Your task to perform on an android device: When is my next appointment? Image 0: 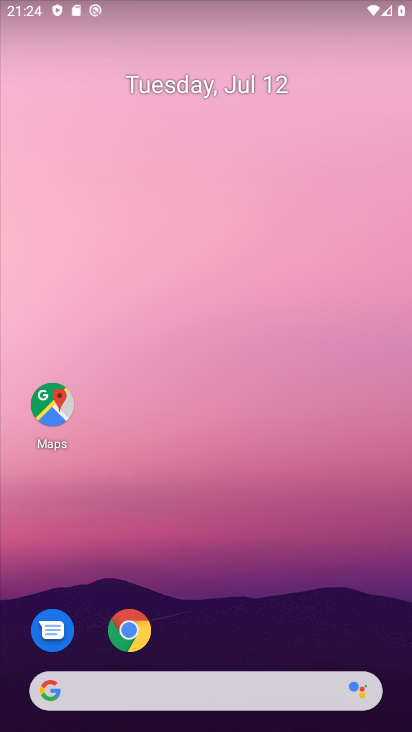
Step 0: click (266, 63)
Your task to perform on an android device: When is my next appointment? Image 1: 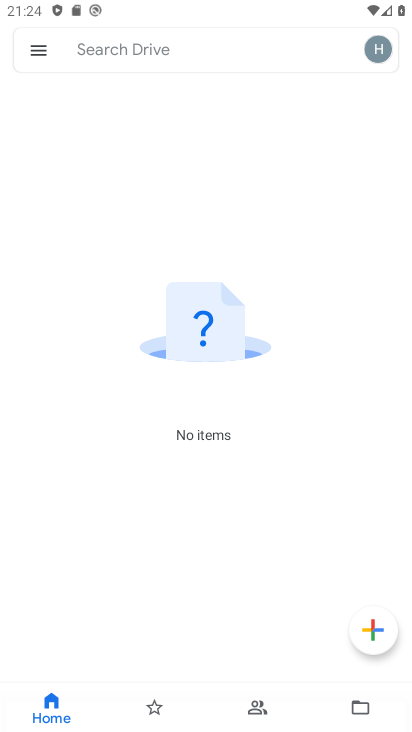
Step 1: press back button
Your task to perform on an android device: When is my next appointment? Image 2: 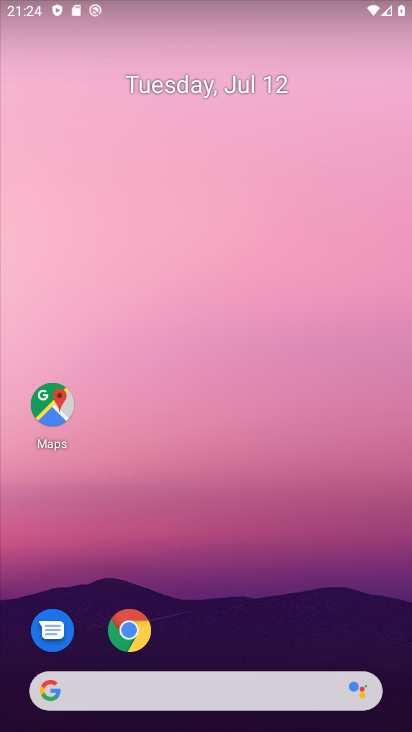
Step 2: drag from (198, 662) to (286, 84)
Your task to perform on an android device: When is my next appointment? Image 3: 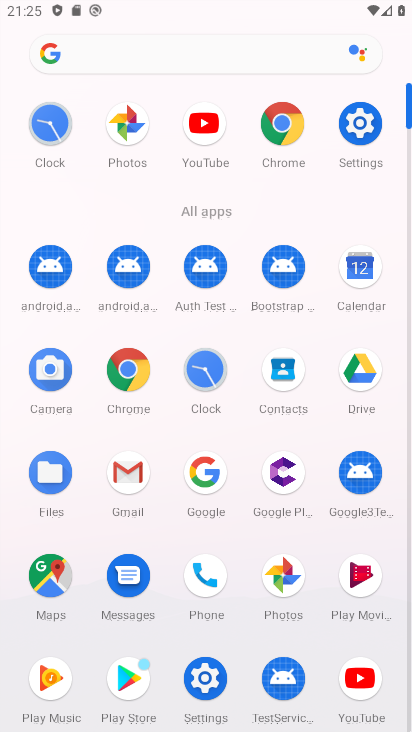
Step 3: click (360, 268)
Your task to perform on an android device: When is my next appointment? Image 4: 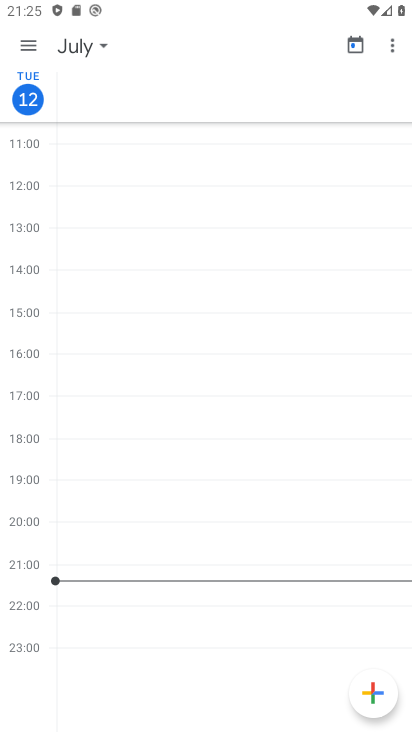
Step 4: drag from (176, 629) to (295, 114)
Your task to perform on an android device: When is my next appointment? Image 5: 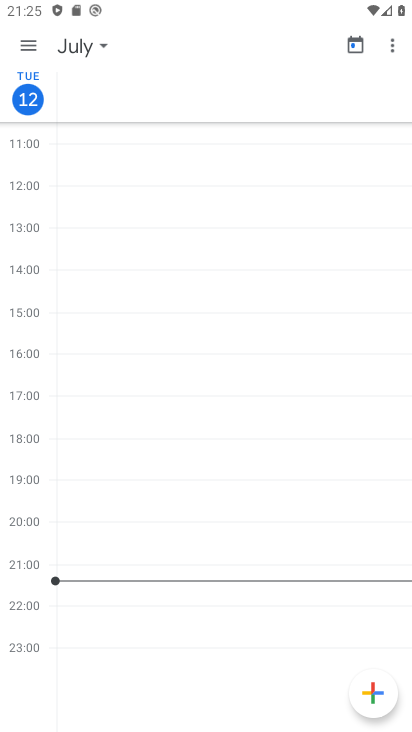
Step 5: click (27, 37)
Your task to perform on an android device: When is my next appointment? Image 6: 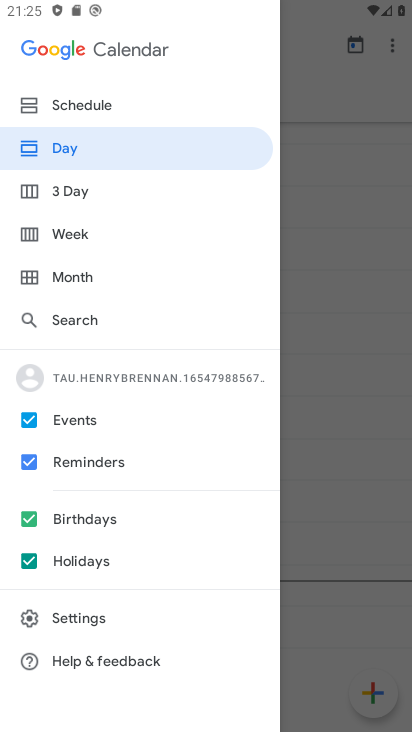
Step 6: click (89, 102)
Your task to perform on an android device: When is my next appointment? Image 7: 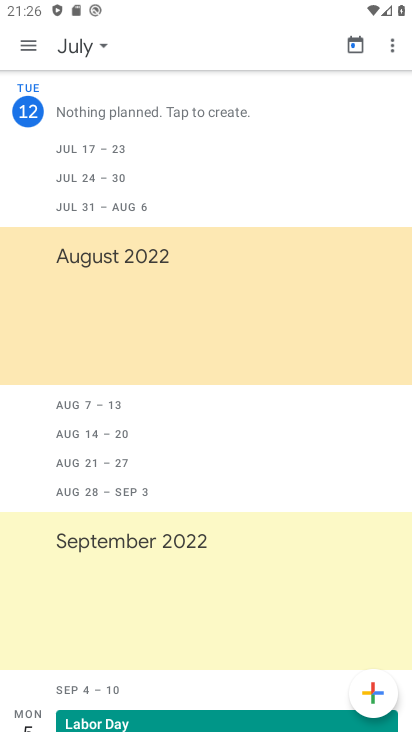
Step 7: task complete